Your task to perform on an android device: Open calendar and show me the first week of next month Image 0: 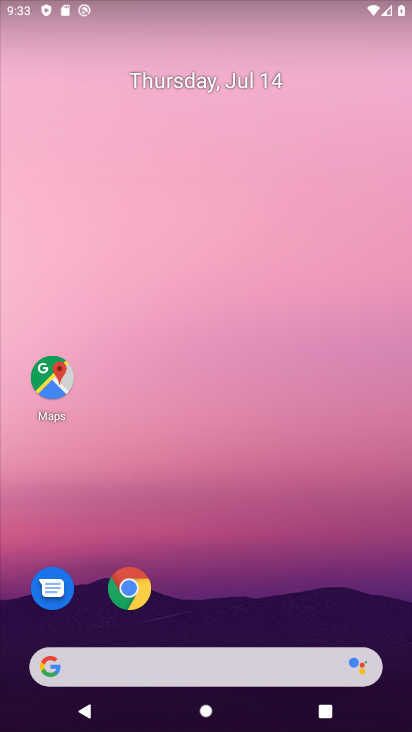
Step 0: drag from (208, 597) to (287, 84)
Your task to perform on an android device: Open calendar and show me the first week of next month Image 1: 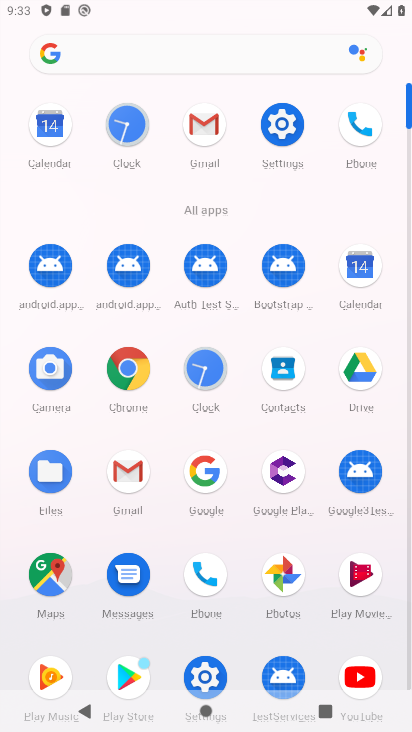
Step 1: click (363, 287)
Your task to perform on an android device: Open calendar and show me the first week of next month Image 2: 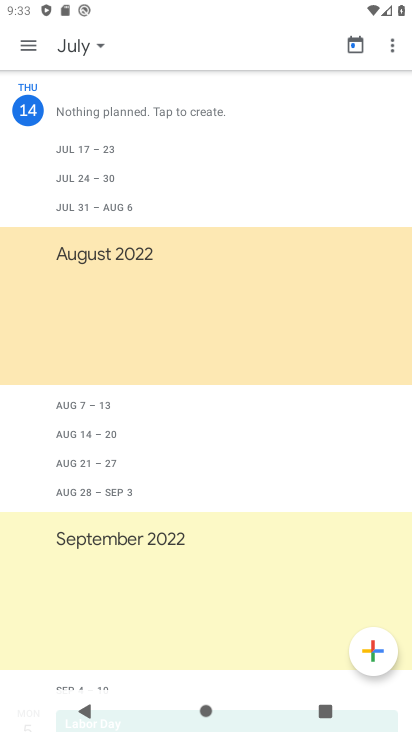
Step 2: click (84, 38)
Your task to perform on an android device: Open calendar and show me the first week of next month Image 3: 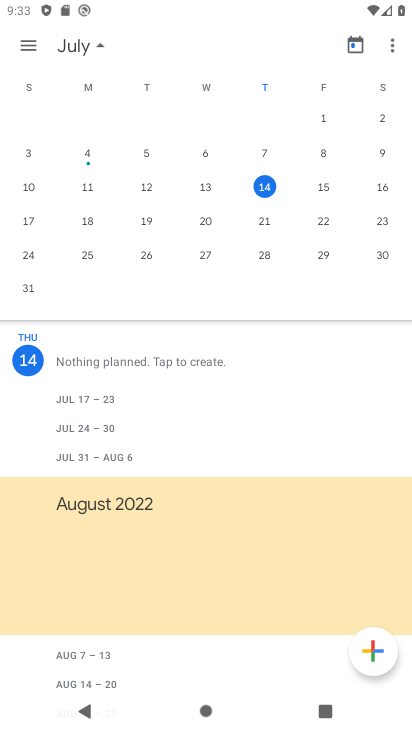
Step 3: task complete